Your task to perform on an android device: Open Yahoo.com Image 0: 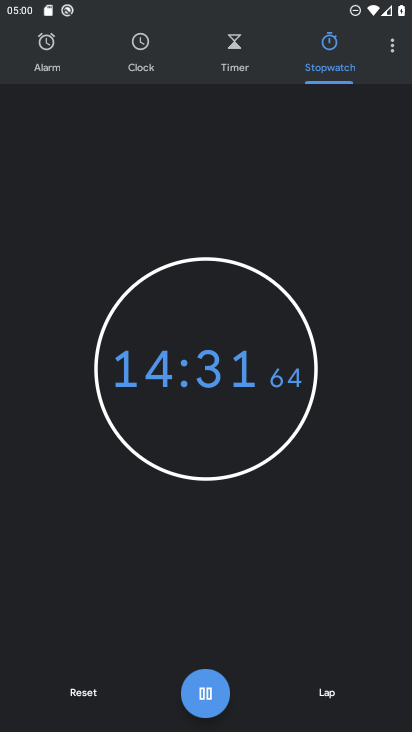
Step 0: press home button
Your task to perform on an android device: Open Yahoo.com Image 1: 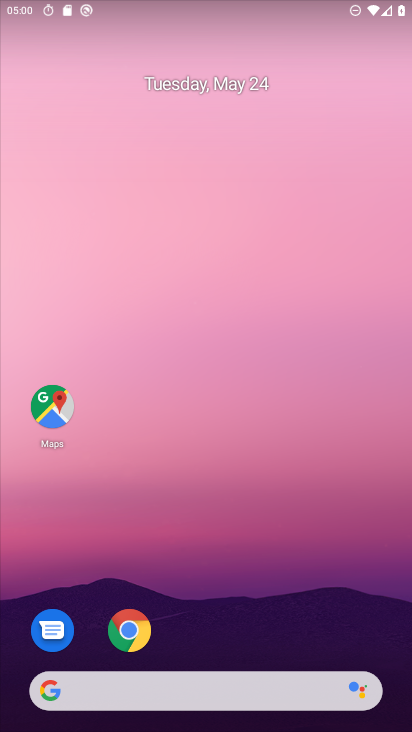
Step 1: click (128, 636)
Your task to perform on an android device: Open Yahoo.com Image 2: 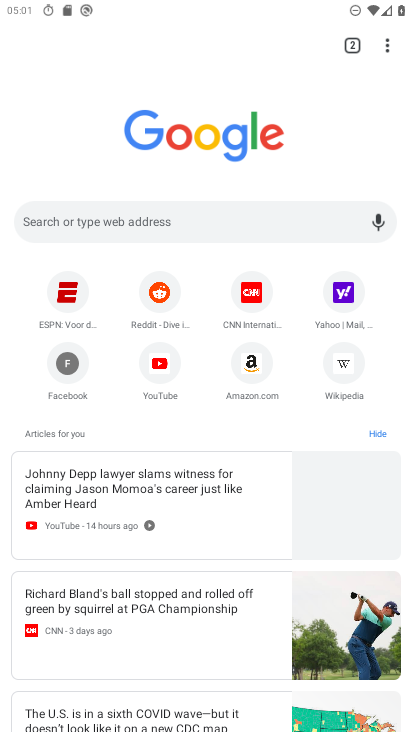
Step 2: click (353, 292)
Your task to perform on an android device: Open Yahoo.com Image 3: 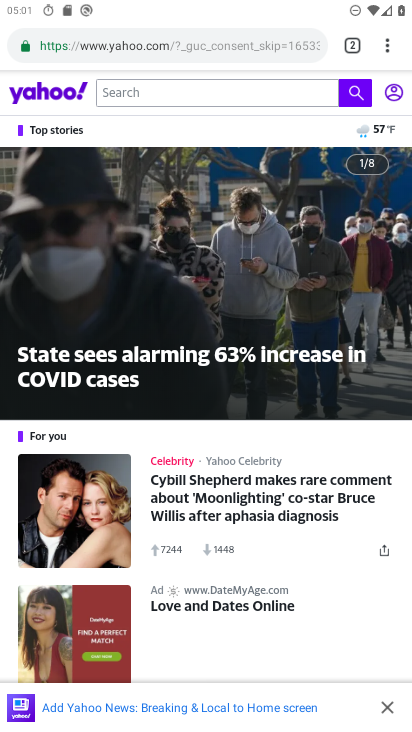
Step 3: task complete